Your task to perform on an android device: delete the emails in spam in the gmail app Image 0: 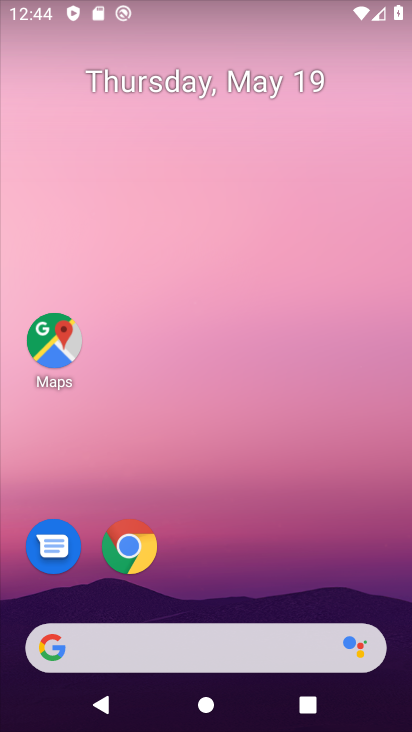
Step 0: click (190, 62)
Your task to perform on an android device: delete the emails in spam in the gmail app Image 1: 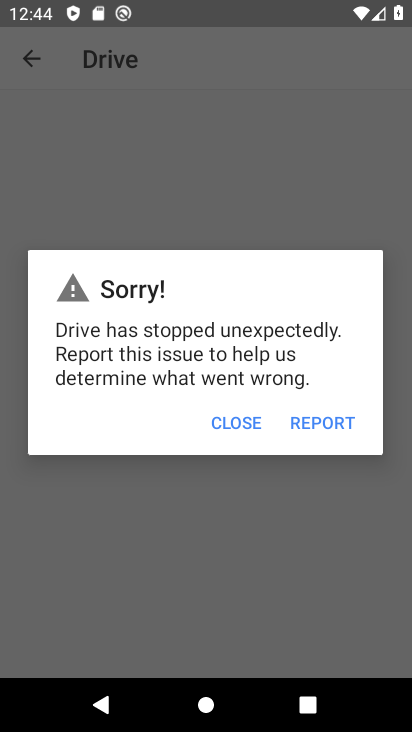
Step 1: press home button
Your task to perform on an android device: delete the emails in spam in the gmail app Image 2: 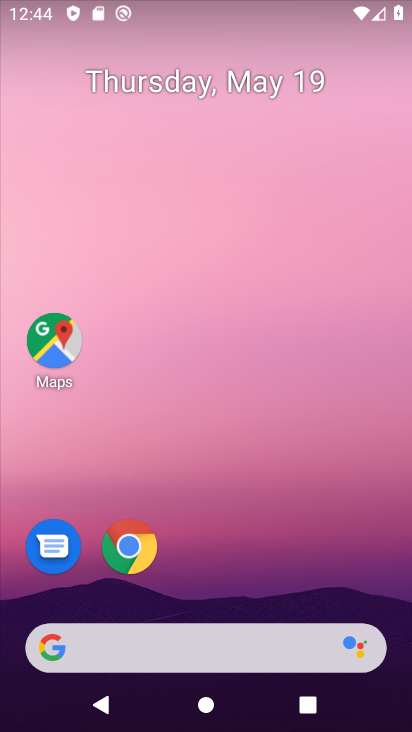
Step 2: drag from (211, 585) to (230, 146)
Your task to perform on an android device: delete the emails in spam in the gmail app Image 3: 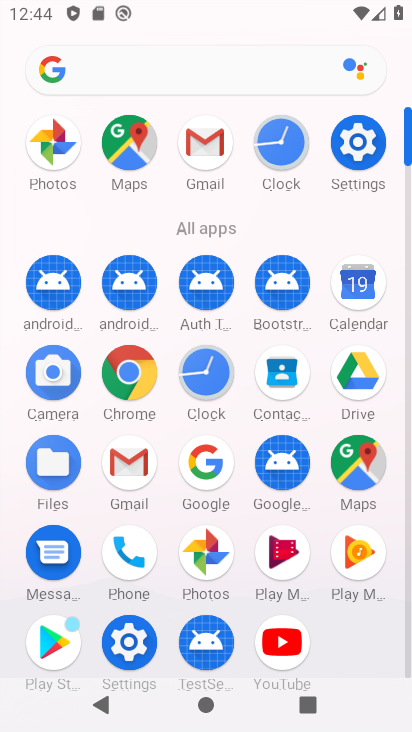
Step 3: click (205, 143)
Your task to perform on an android device: delete the emails in spam in the gmail app Image 4: 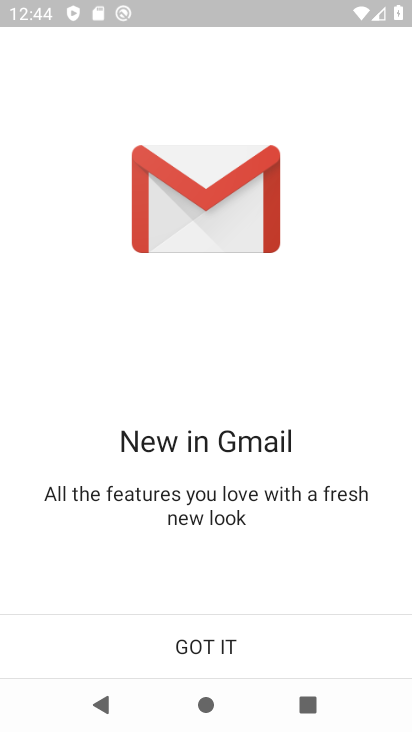
Step 4: click (210, 644)
Your task to perform on an android device: delete the emails in spam in the gmail app Image 5: 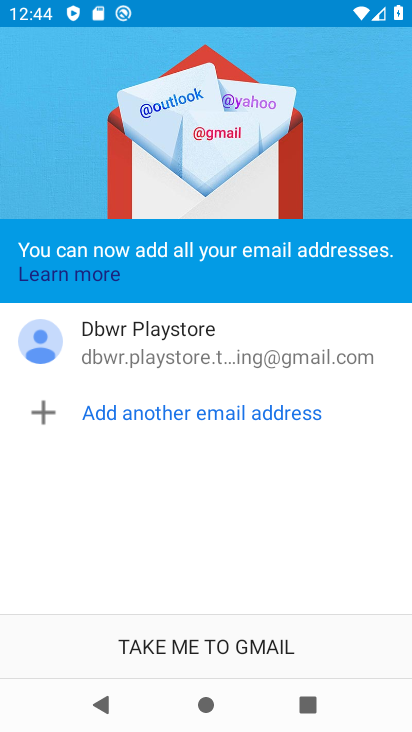
Step 5: click (210, 644)
Your task to perform on an android device: delete the emails in spam in the gmail app Image 6: 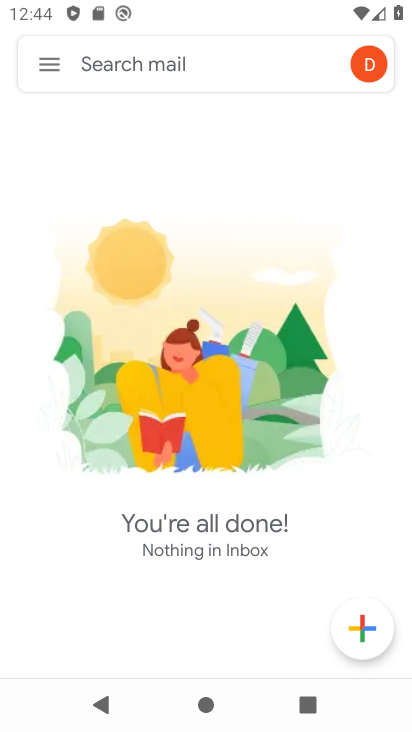
Step 6: task complete